Your task to perform on an android device: change notifications settings Image 0: 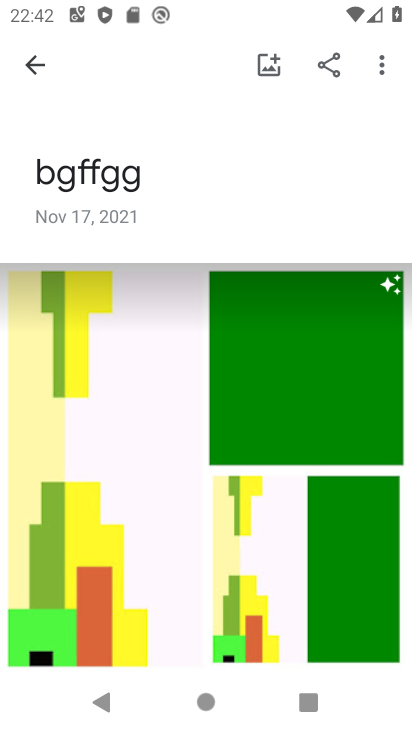
Step 0: press home button
Your task to perform on an android device: change notifications settings Image 1: 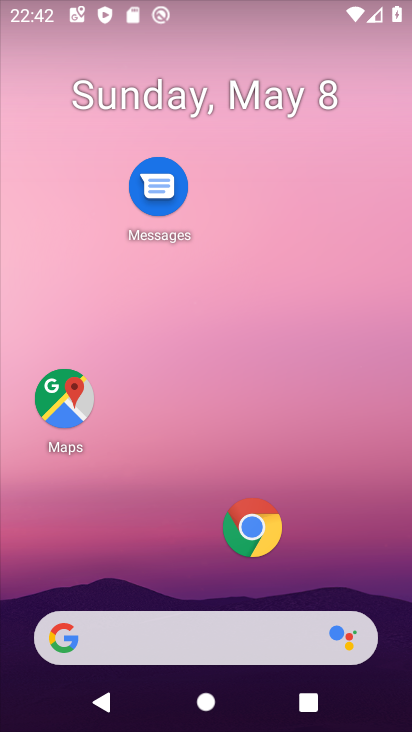
Step 1: drag from (195, 533) to (237, 61)
Your task to perform on an android device: change notifications settings Image 2: 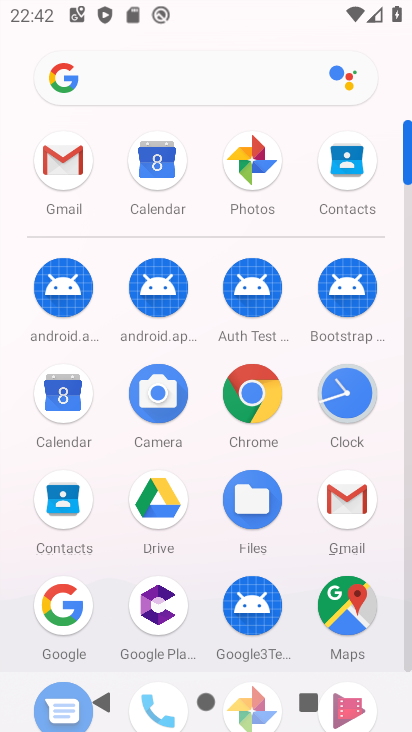
Step 2: drag from (211, 599) to (211, 129)
Your task to perform on an android device: change notifications settings Image 3: 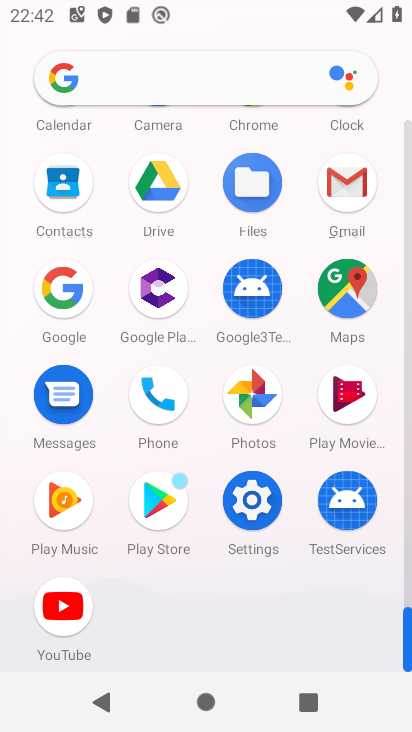
Step 3: click (256, 504)
Your task to perform on an android device: change notifications settings Image 4: 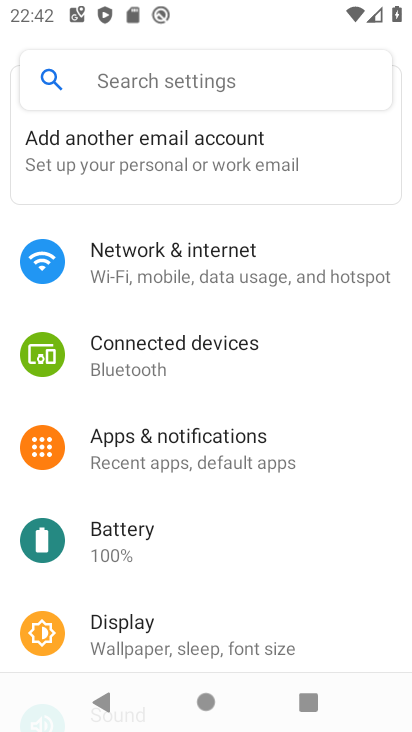
Step 4: drag from (228, 602) to (246, 139)
Your task to perform on an android device: change notifications settings Image 5: 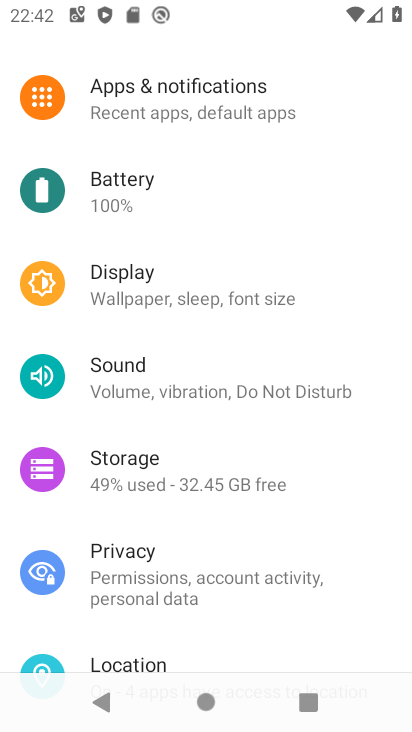
Step 5: click (167, 94)
Your task to perform on an android device: change notifications settings Image 6: 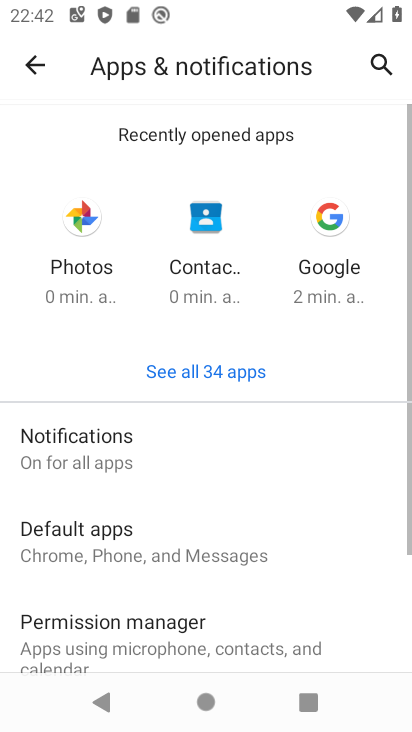
Step 6: click (125, 453)
Your task to perform on an android device: change notifications settings Image 7: 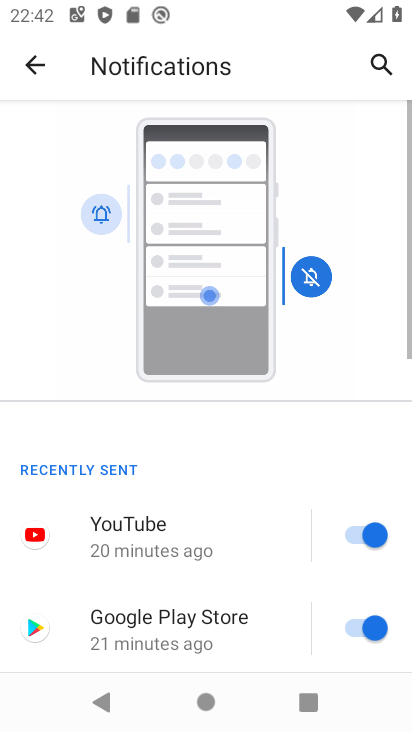
Step 7: drag from (260, 529) to (264, 18)
Your task to perform on an android device: change notifications settings Image 8: 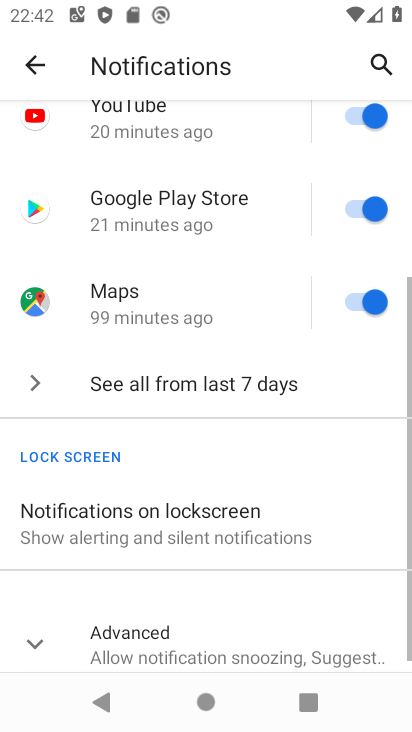
Step 8: click (144, 649)
Your task to perform on an android device: change notifications settings Image 9: 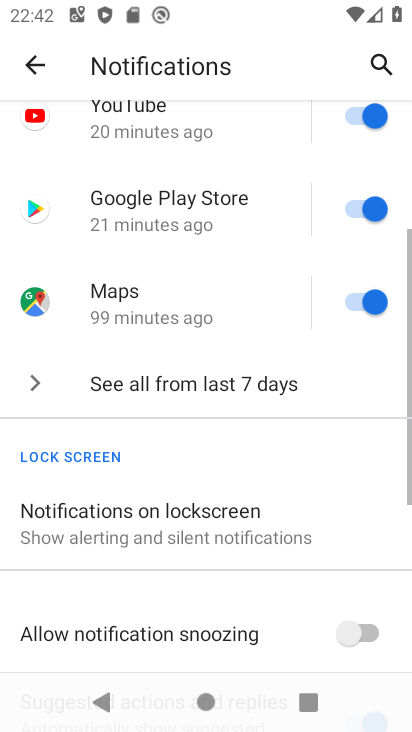
Step 9: drag from (254, 534) to (340, 273)
Your task to perform on an android device: change notifications settings Image 10: 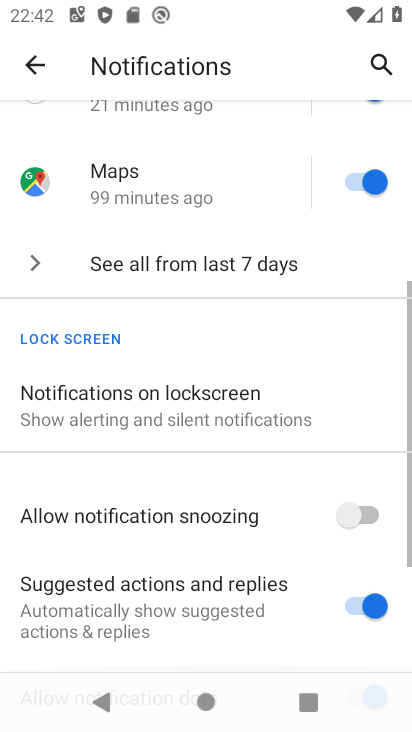
Step 10: click (365, 371)
Your task to perform on an android device: change notifications settings Image 11: 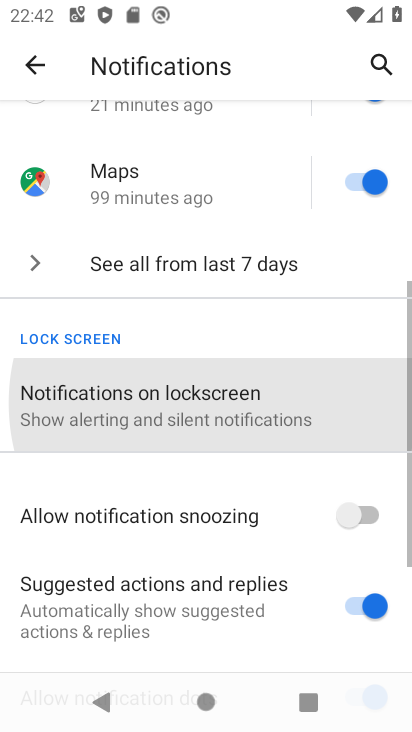
Step 11: drag from (369, 457) to (331, 219)
Your task to perform on an android device: change notifications settings Image 12: 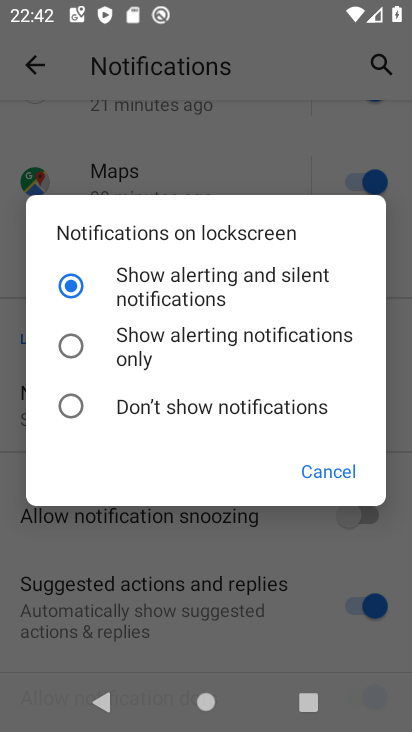
Step 12: click (67, 413)
Your task to perform on an android device: change notifications settings Image 13: 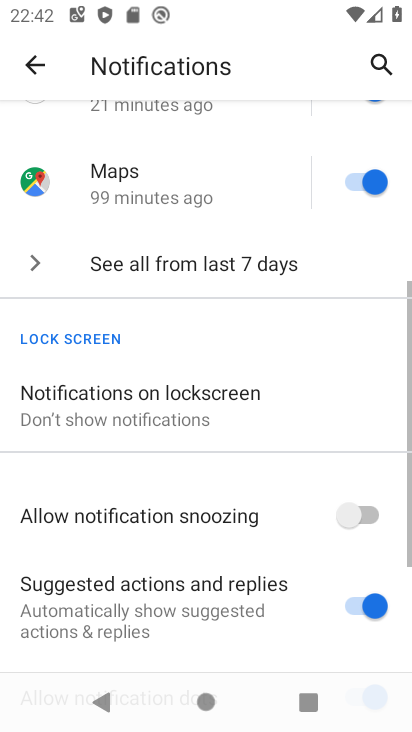
Step 13: click (356, 524)
Your task to perform on an android device: change notifications settings Image 14: 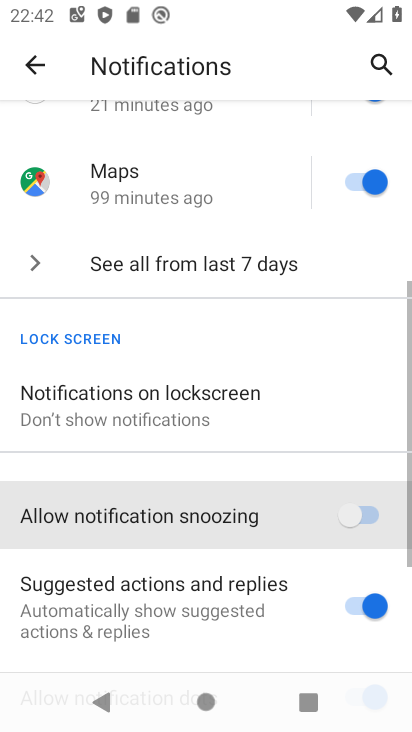
Step 14: click (365, 616)
Your task to perform on an android device: change notifications settings Image 15: 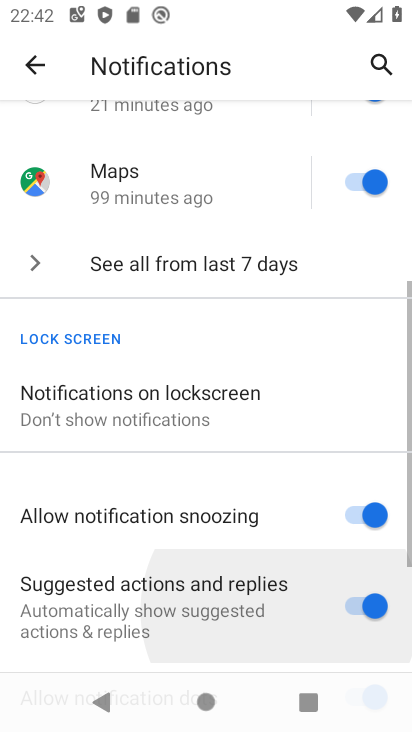
Step 15: drag from (254, 543) to (254, 298)
Your task to perform on an android device: change notifications settings Image 16: 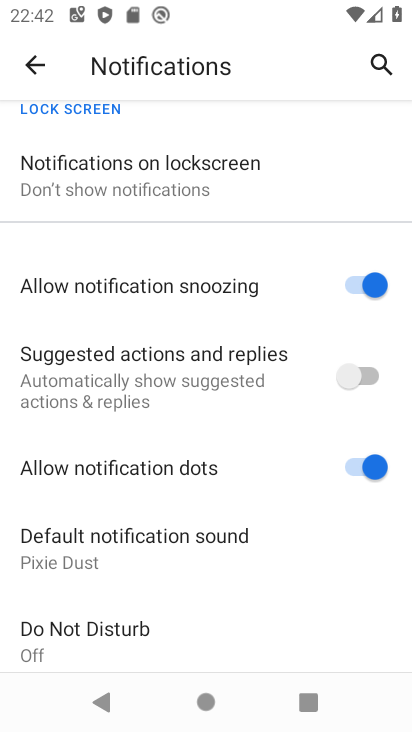
Step 16: click (361, 450)
Your task to perform on an android device: change notifications settings Image 17: 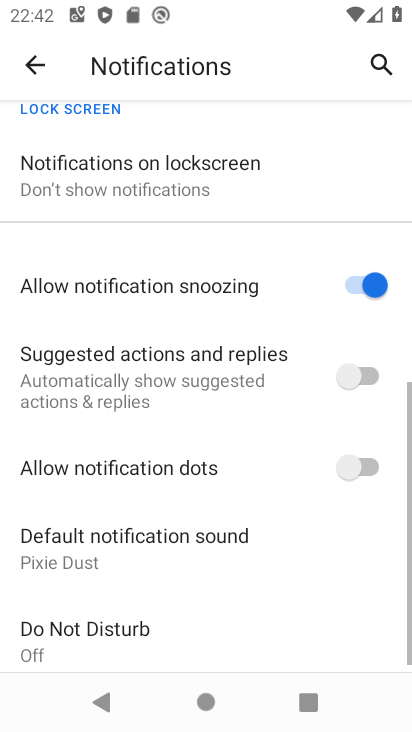
Step 17: task complete